Your task to perform on an android device: open app "Skype" (install if not already installed) and enter user name: "rumor@gmail.com" and password: "kinsman" Image 0: 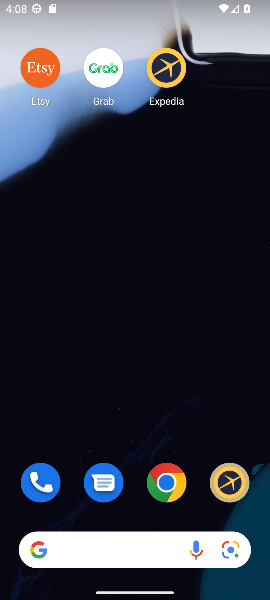
Step 0: drag from (138, 510) to (144, 90)
Your task to perform on an android device: open app "Skype" (install if not already installed) and enter user name: "rumor@gmail.com" and password: "kinsman" Image 1: 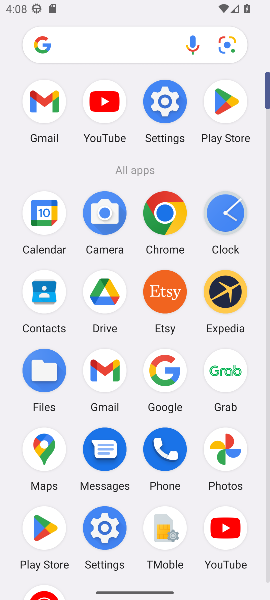
Step 1: click (44, 536)
Your task to perform on an android device: open app "Skype" (install if not already installed) and enter user name: "rumor@gmail.com" and password: "kinsman" Image 2: 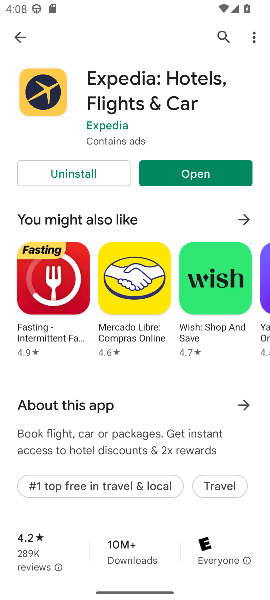
Step 2: click (225, 33)
Your task to perform on an android device: open app "Skype" (install if not already installed) and enter user name: "rumor@gmail.com" and password: "kinsman" Image 3: 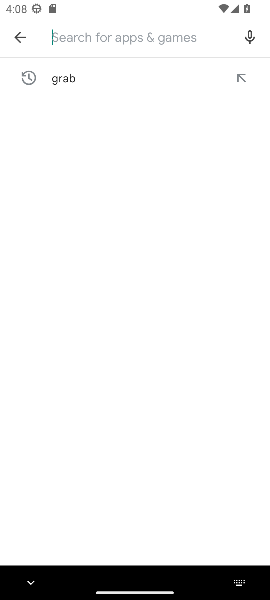
Step 3: type "Skype"
Your task to perform on an android device: open app "Skype" (install if not already installed) and enter user name: "rumor@gmail.com" and password: "kinsman" Image 4: 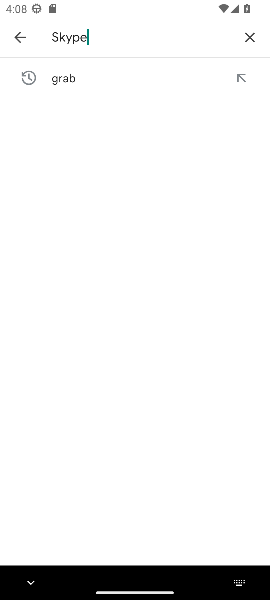
Step 4: type ""
Your task to perform on an android device: open app "Skype" (install if not already installed) and enter user name: "rumor@gmail.com" and password: "kinsman" Image 5: 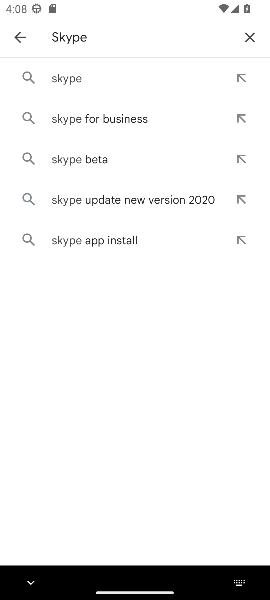
Step 5: click (66, 76)
Your task to perform on an android device: open app "Skype" (install if not already installed) and enter user name: "rumor@gmail.com" and password: "kinsman" Image 6: 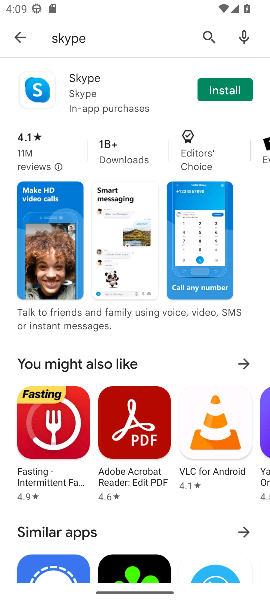
Step 6: click (217, 89)
Your task to perform on an android device: open app "Skype" (install if not already installed) and enter user name: "rumor@gmail.com" and password: "kinsman" Image 7: 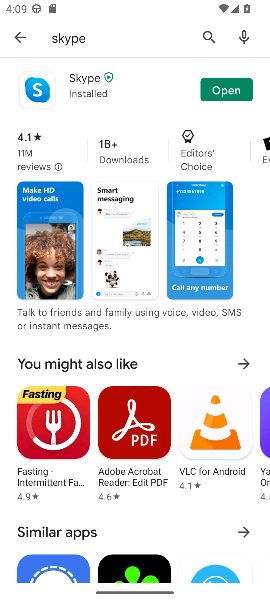
Step 7: click (237, 94)
Your task to perform on an android device: open app "Skype" (install if not already installed) and enter user name: "rumor@gmail.com" and password: "kinsman" Image 8: 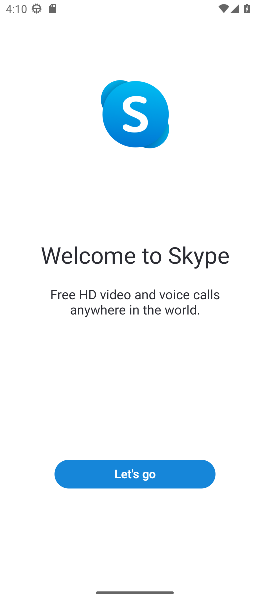
Step 8: click (161, 475)
Your task to perform on an android device: open app "Skype" (install if not already installed) and enter user name: "rumor@gmail.com" and password: "kinsman" Image 9: 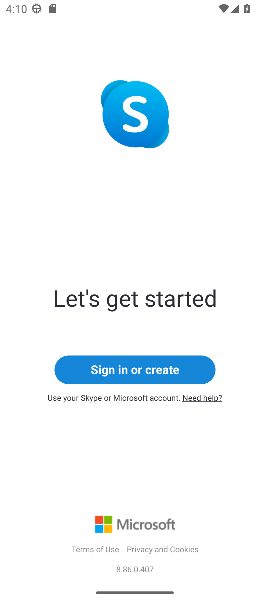
Step 9: click (149, 378)
Your task to perform on an android device: open app "Skype" (install if not already installed) and enter user name: "rumor@gmail.com" and password: "kinsman" Image 10: 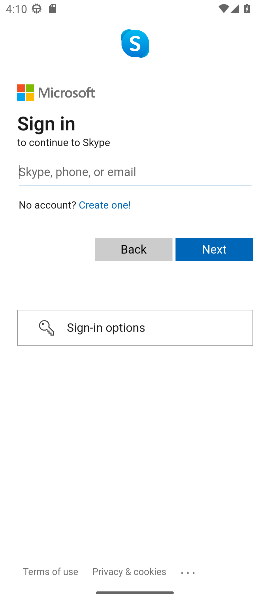
Step 10: click (123, 169)
Your task to perform on an android device: open app "Skype" (install if not already installed) and enter user name: "rumor@gmail.com" and password: "kinsman" Image 11: 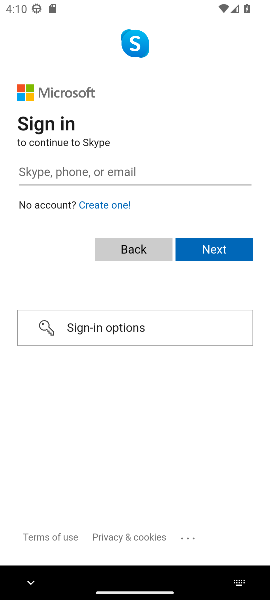
Step 11: click (139, 171)
Your task to perform on an android device: open app "Skype" (install if not already installed) and enter user name: "rumor@gmail.com" and password: "kinsman" Image 12: 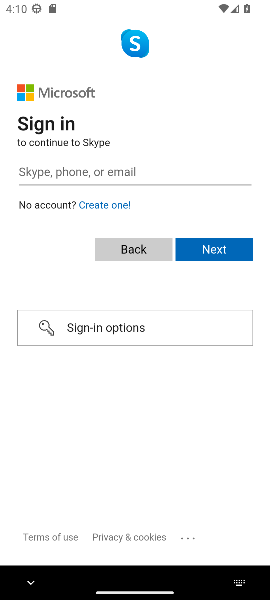
Step 12: type "rumor@gmail.com"
Your task to perform on an android device: open app "Skype" (install if not already installed) and enter user name: "rumor@gmail.com" and password: "kinsman" Image 13: 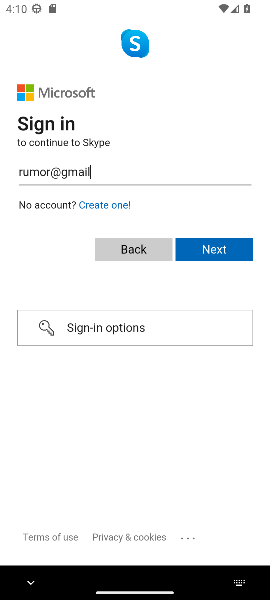
Step 13: type ""
Your task to perform on an android device: open app "Skype" (install if not already installed) and enter user name: "rumor@gmail.com" and password: "kinsman" Image 14: 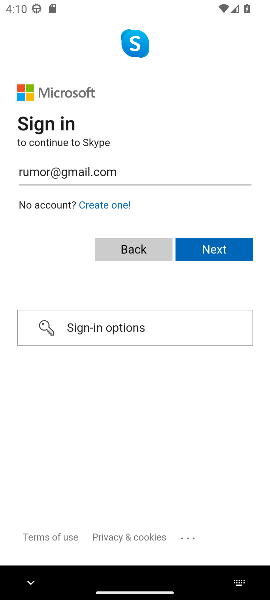
Step 14: click (223, 243)
Your task to perform on an android device: open app "Skype" (install if not already installed) and enter user name: "rumor@gmail.com" and password: "kinsman" Image 15: 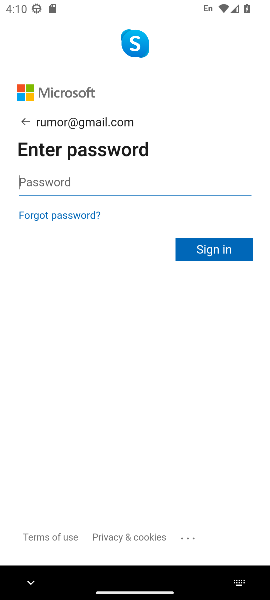
Step 15: type "kinsman"
Your task to perform on an android device: open app "Skype" (install if not already installed) and enter user name: "rumor@gmail.com" and password: "kinsman" Image 16: 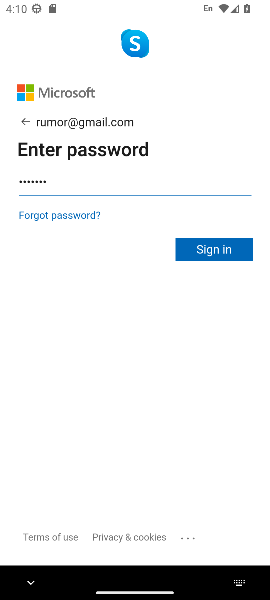
Step 16: task complete